Your task to perform on an android device: check storage Image 0: 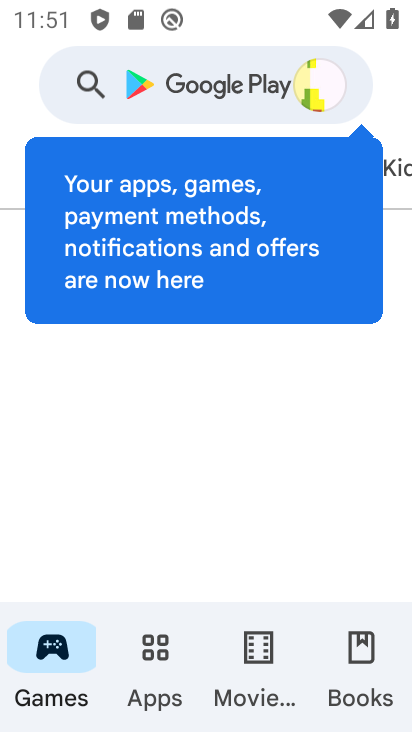
Step 0: press home button
Your task to perform on an android device: check storage Image 1: 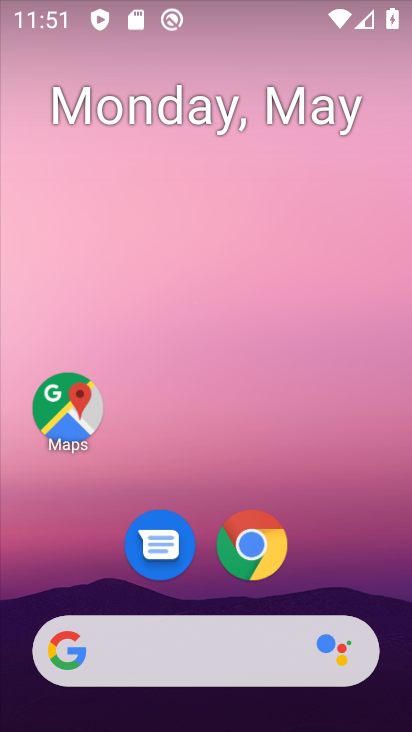
Step 1: drag from (305, 544) to (253, 163)
Your task to perform on an android device: check storage Image 2: 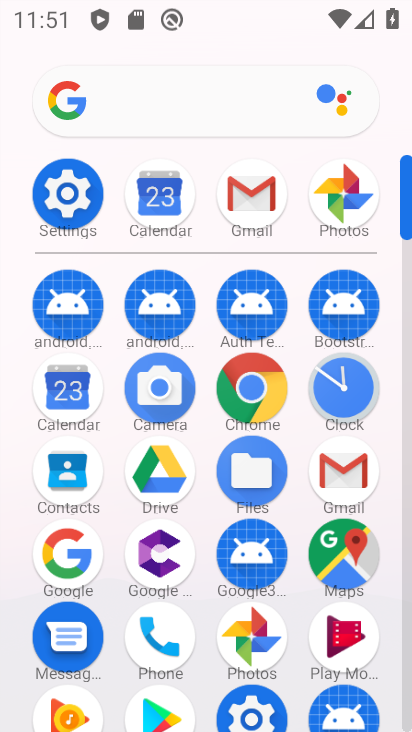
Step 2: click (54, 203)
Your task to perform on an android device: check storage Image 3: 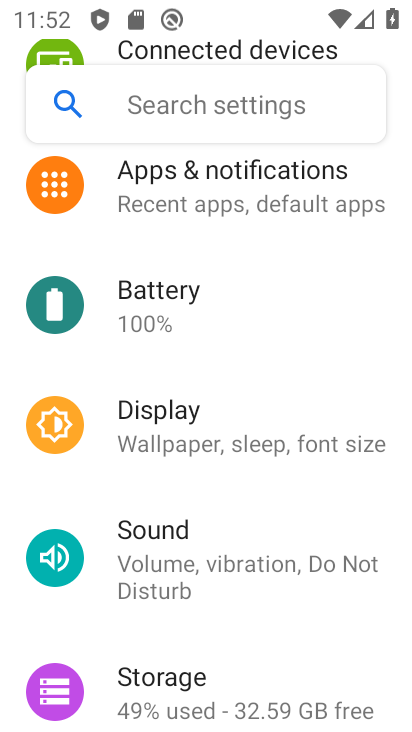
Step 3: drag from (233, 271) to (253, 608)
Your task to perform on an android device: check storage Image 4: 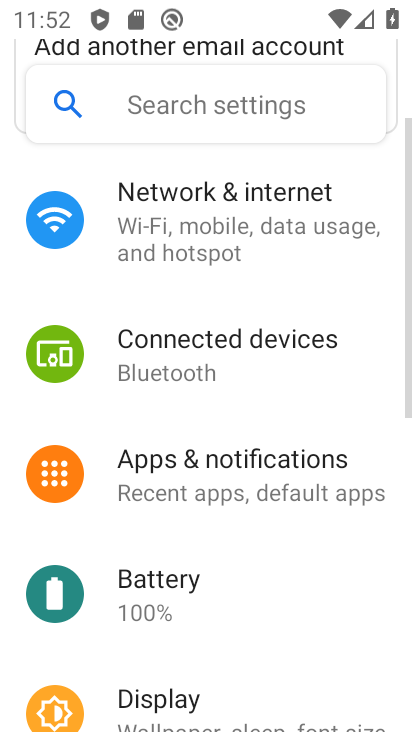
Step 4: drag from (274, 712) to (266, 337)
Your task to perform on an android device: check storage Image 5: 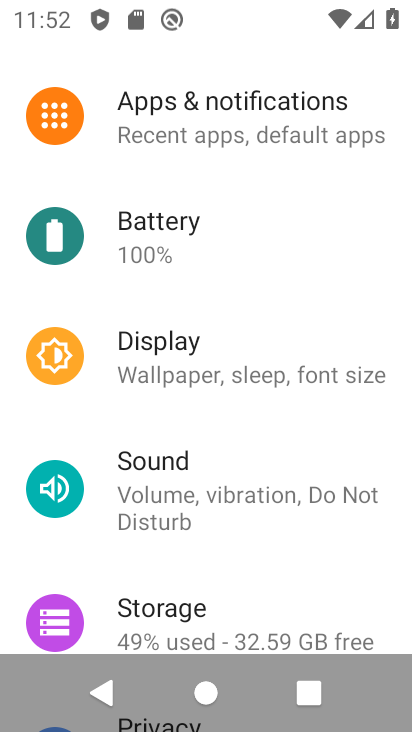
Step 5: click (290, 612)
Your task to perform on an android device: check storage Image 6: 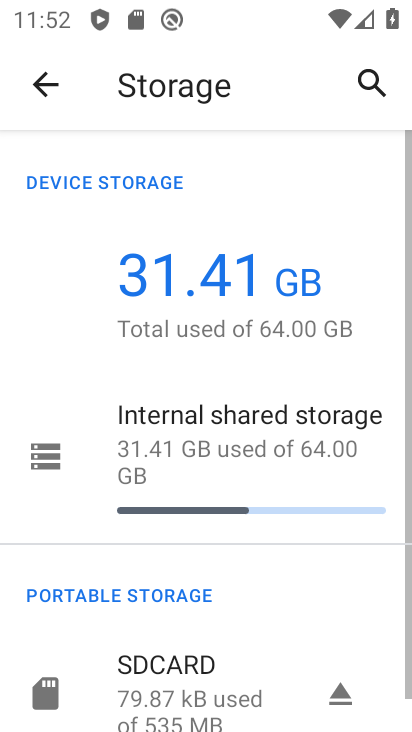
Step 6: task complete